Your task to perform on an android device: Open Google Chrome and open the bookmarks view Image 0: 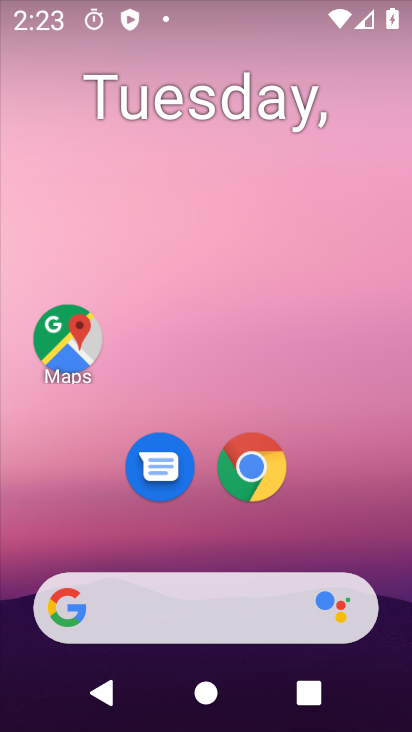
Step 0: drag from (382, 562) to (384, 128)
Your task to perform on an android device: Open Google Chrome and open the bookmarks view Image 1: 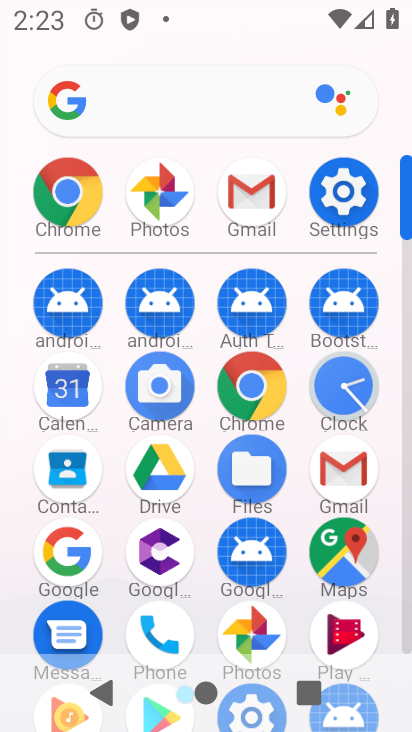
Step 1: click (265, 391)
Your task to perform on an android device: Open Google Chrome and open the bookmarks view Image 2: 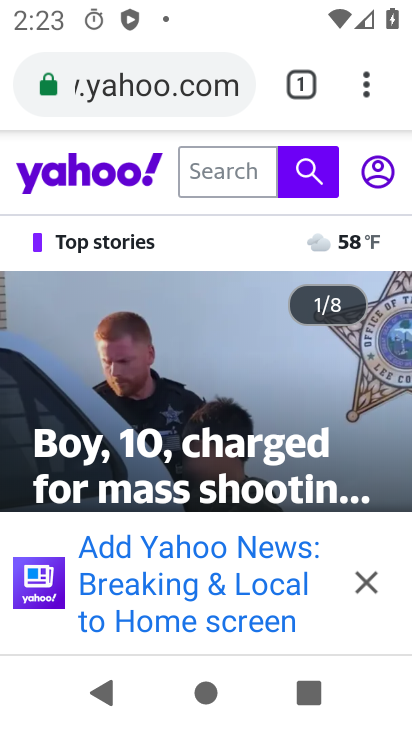
Step 2: click (368, 98)
Your task to perform on an android device: Open Google Chrome and open the bookmarks view Image 3: 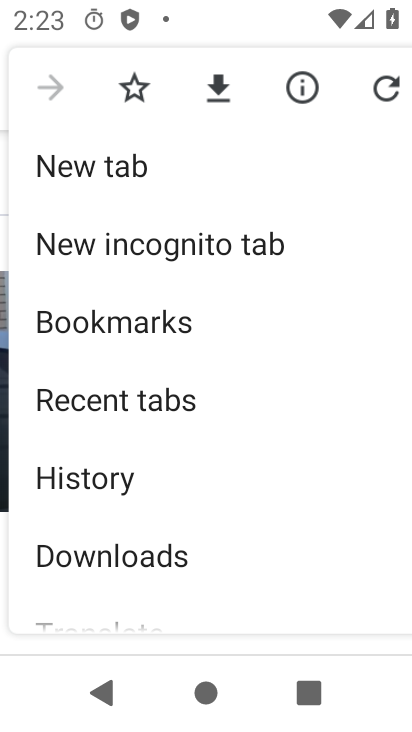
Step 3: drag from (320, 486) to (331, 395)
Your task to perform on an android device: Open Google Chrome and open the bookmarks view Image 4: 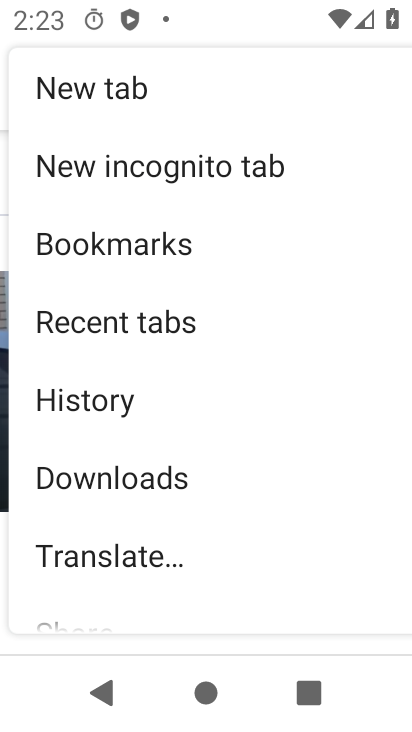
Step 4: drag from (327, 491) to (323, 372)
Your task to perform on an android device: Open Google Chrome and open the bookmarks view Image 5: 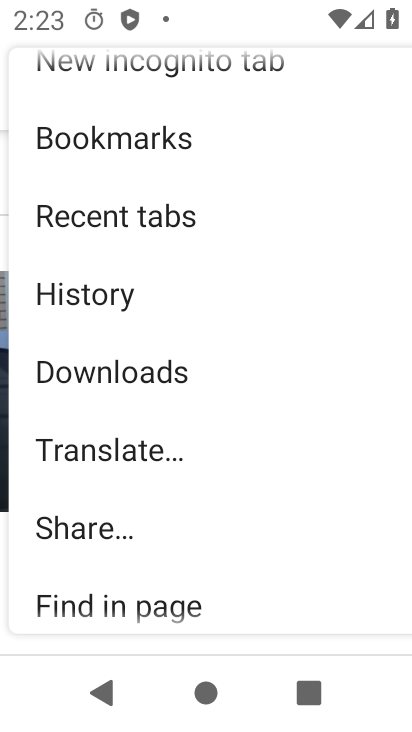
Step 5: drag from (290, 448) to (302, 227)
Your task to perform on an android device: Open Google Chrome and open the bookmarks view Image 6: 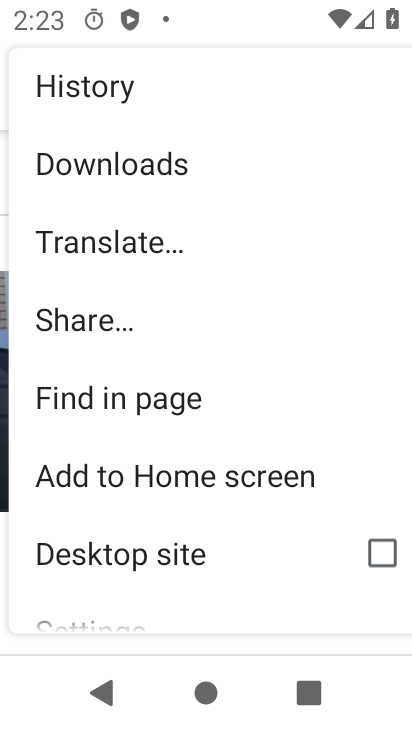
Step 6: drag from (300, 186) to (296, 353)
Your task to perform on an android device: Open Google Chrome and open the bookmarks view Image 7: 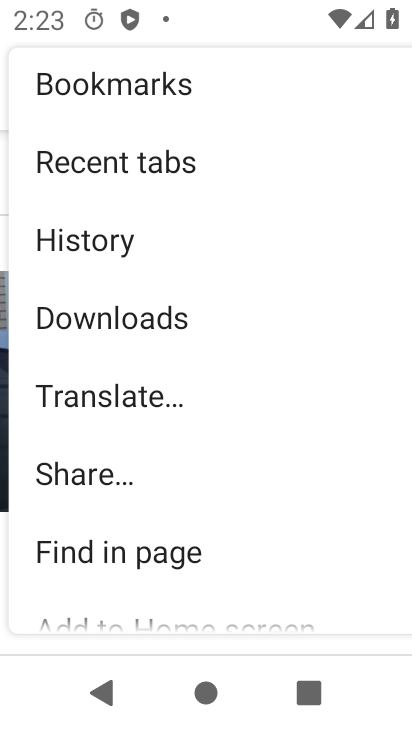
Step 7: drag from (304, 227) to (309, 450)
Your task to perform on an android device: Open Google Chrome and open the bookmarks view Image 8: 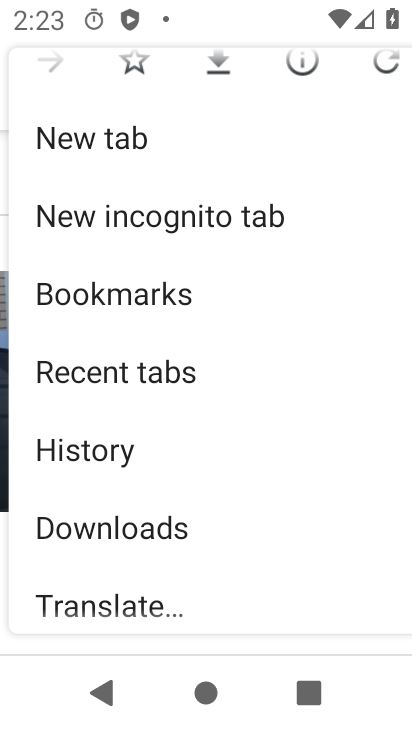
Step 8: click (221, 298)
Your task to perform on an android device: Open Google Chrome and open the bookmarks view Image 9: 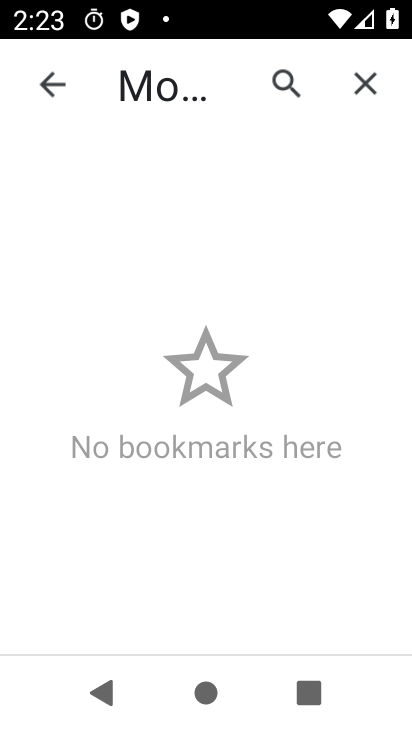
Step 9: task complete